Your task to perform on an android device: install app "Google Home" Image 0: 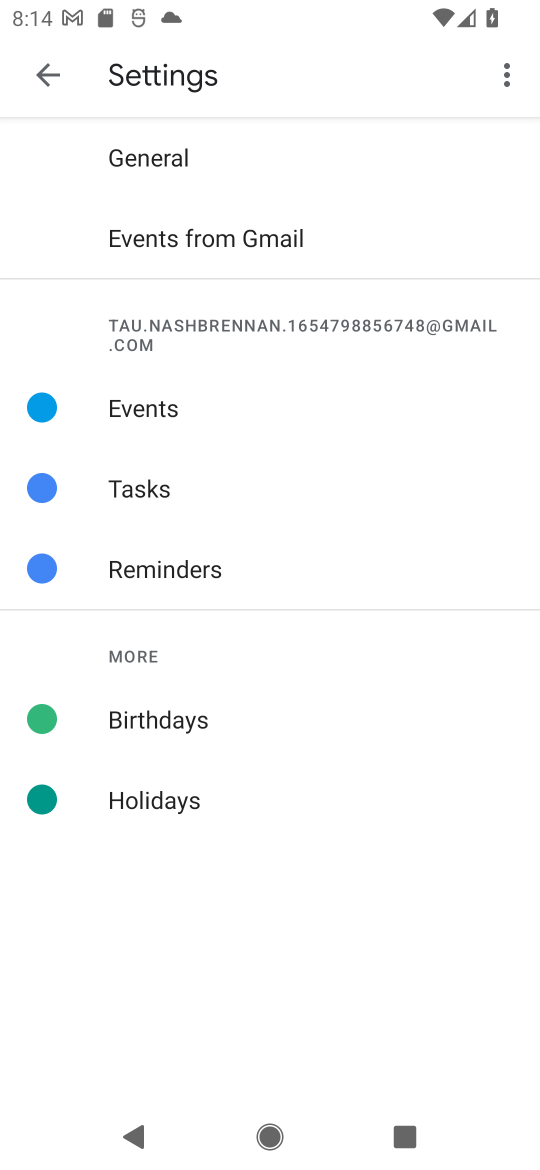
Step 0: press home button
Your task to perform on an android device: install app "Google Home" Image 1: 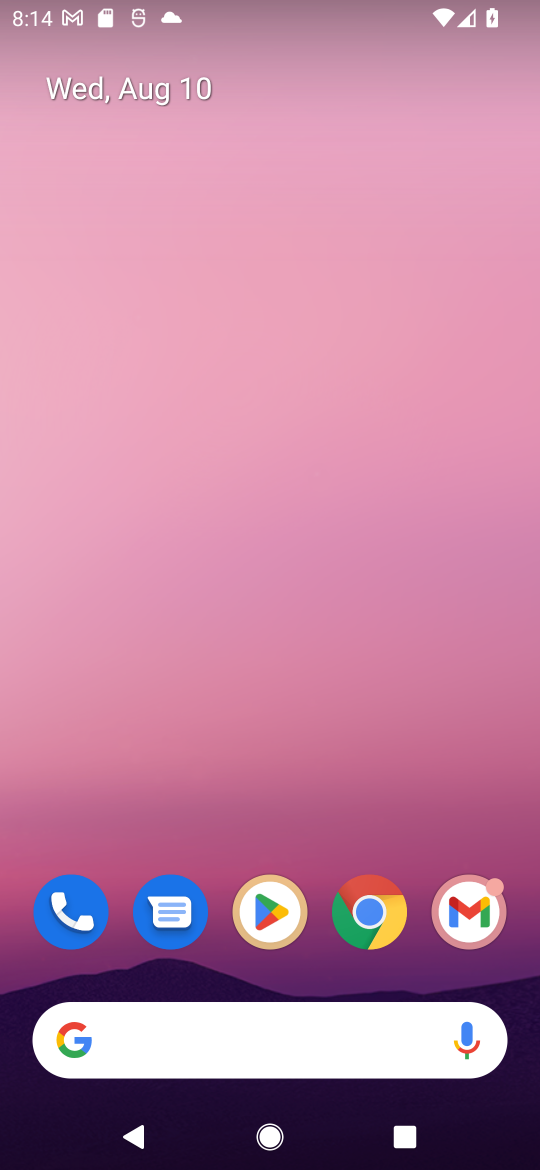
Step 1: drag from (522, 965) to (334, 37)
Your task to perform on an android device: install app "Google Home" Image 2: 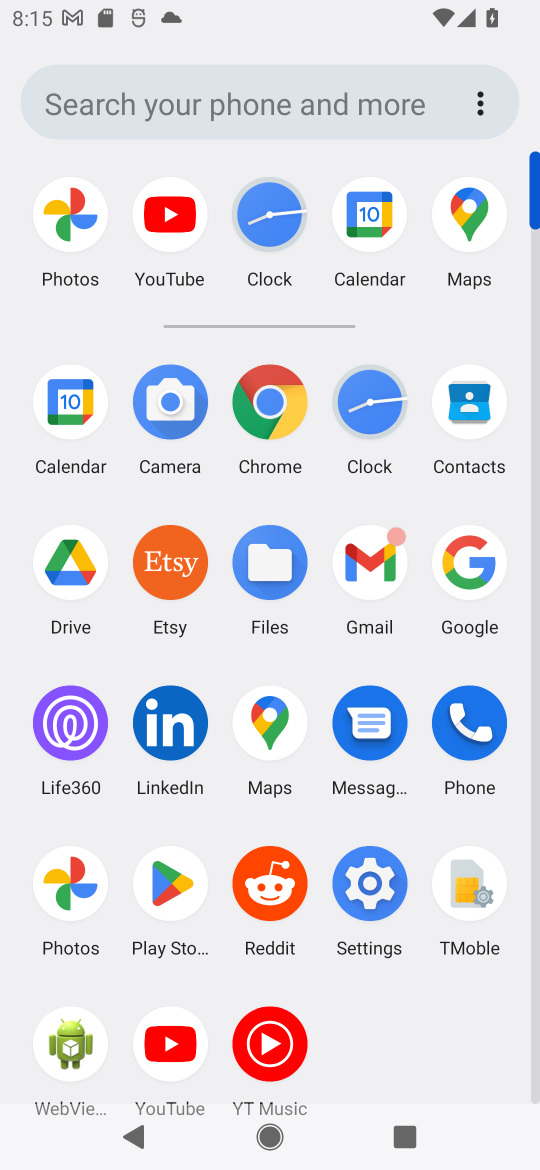
Step 2: click (167, 891)
Your task to perform on an android device: install app "Google Home" Image 3: 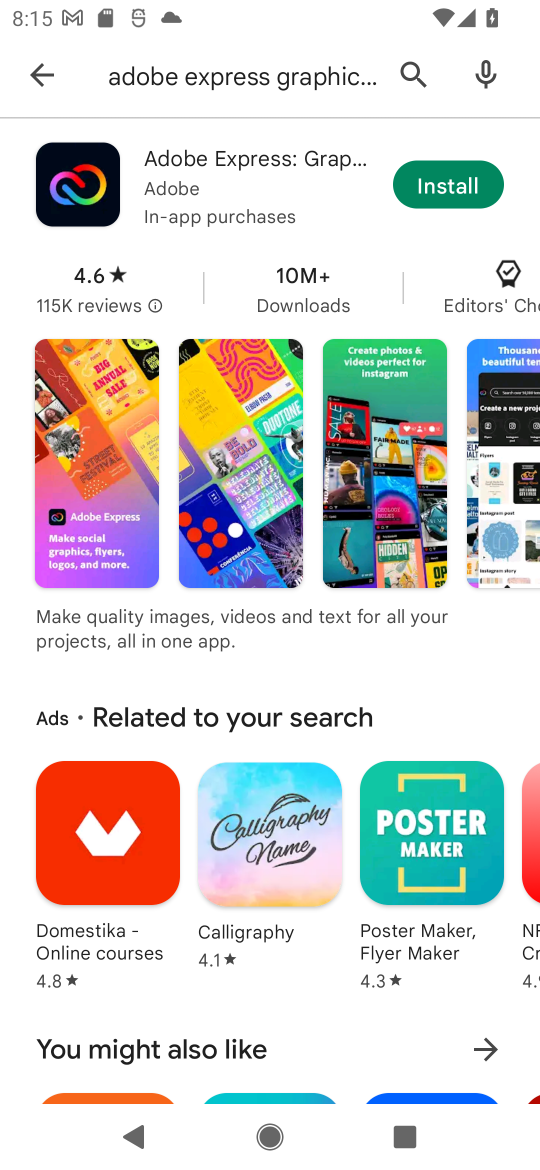
Step 3: press back button
Your task to perform on an android device: install app "Google Home" Image 4: 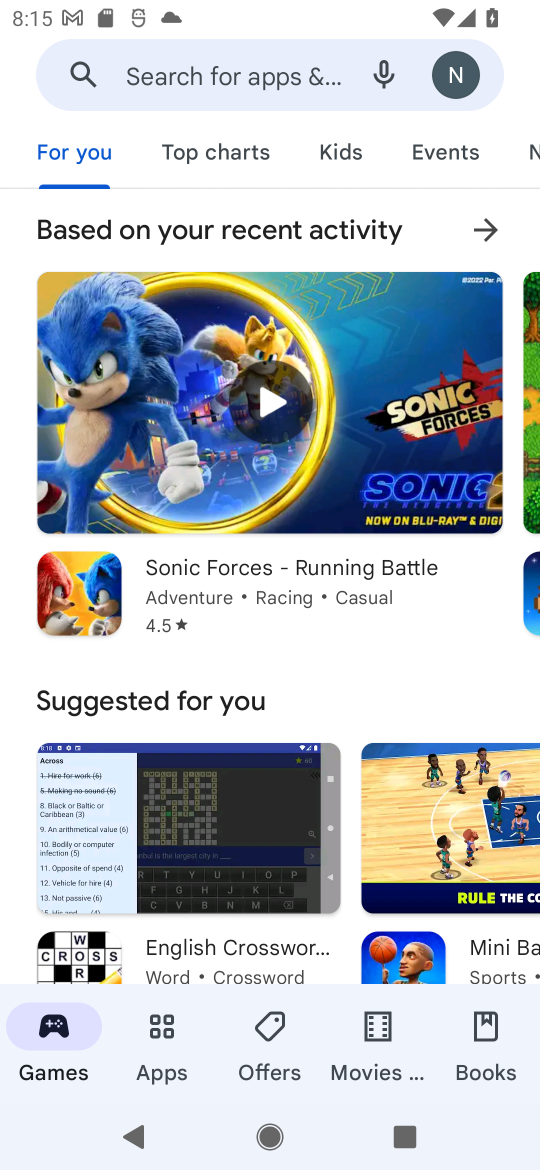
Step 4: click (212, 71)
Your task to perform on an android device: install app "Google Home" Image 5: 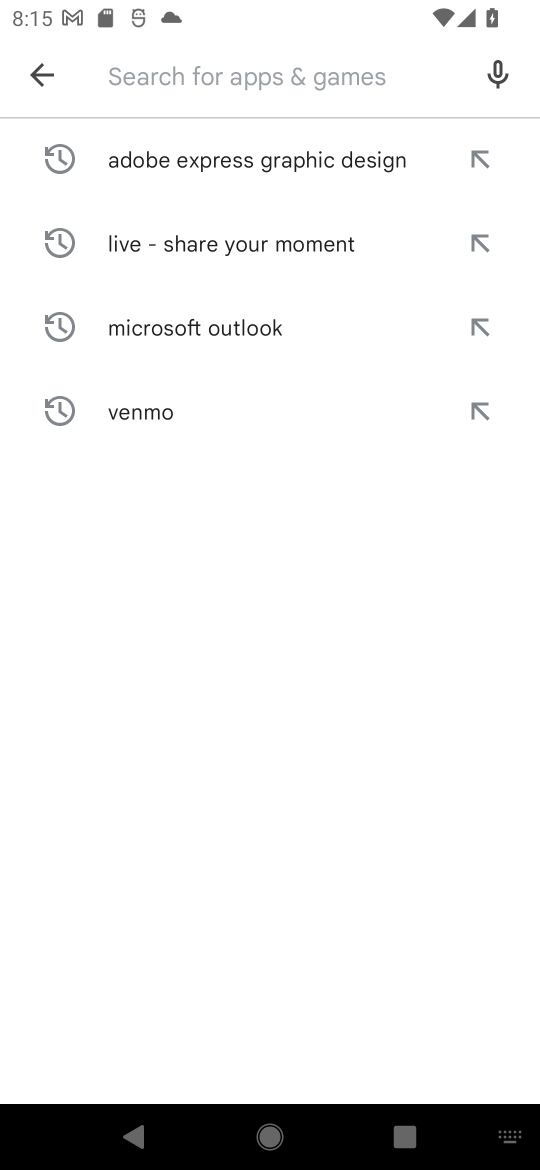
Step 5: type "Google Home"
Your task to perform on an android device: install app "Google Home" Image 6: 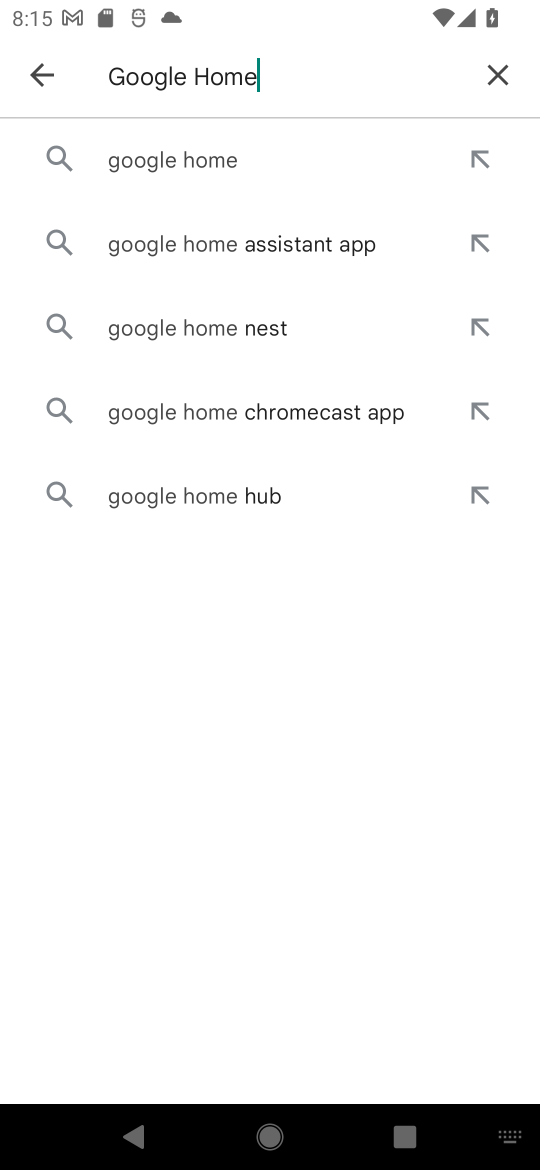
Step 6: click (219, 164)
Your task to perform on an android device: install app "Google Home" Image 7: 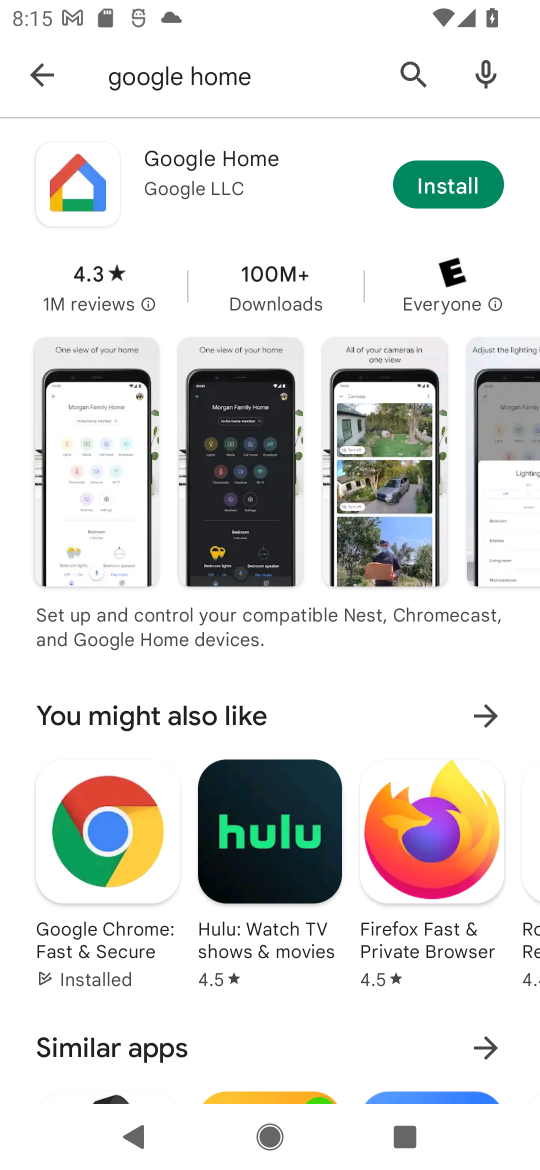
Step 7: click (452, 192)
Your task to perform on an android device: install app "Google Home" Image 8: 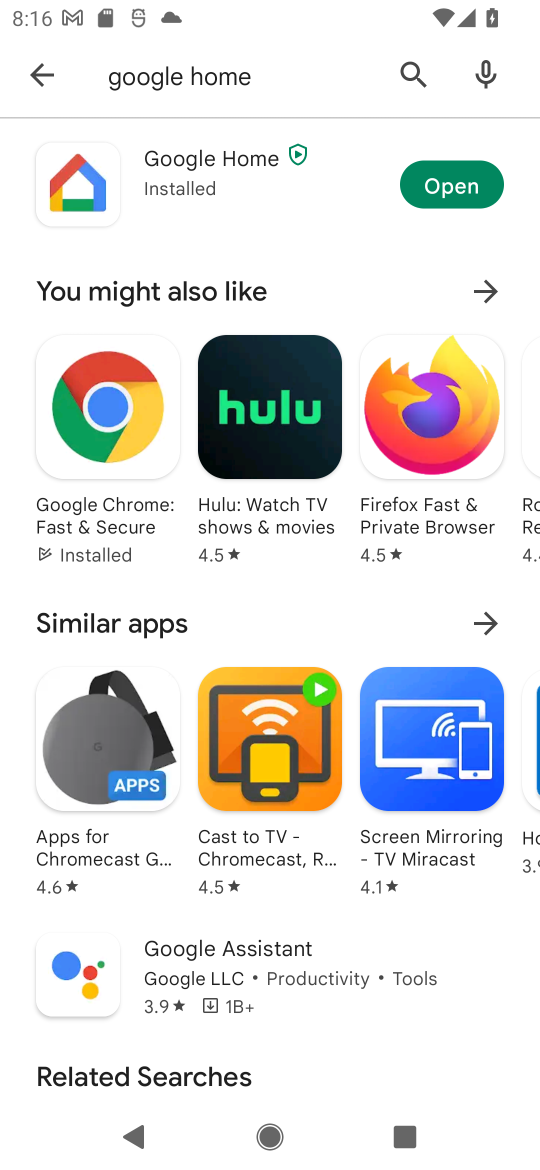
Step 8: task complete